Your task to perform on an android device: Open the map Image 0: 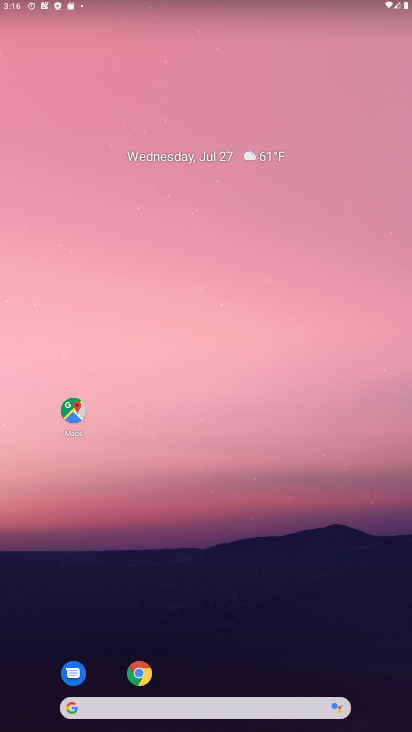
Step 0: click (62, 397)
Your task to perform on an android device: Open the map Image 1: 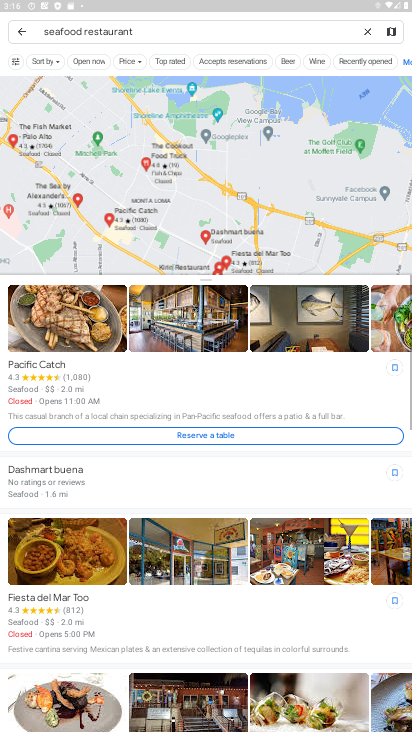
Step 1: click (19, 31)
Your task to perform on an android device: Open the map Image 2: 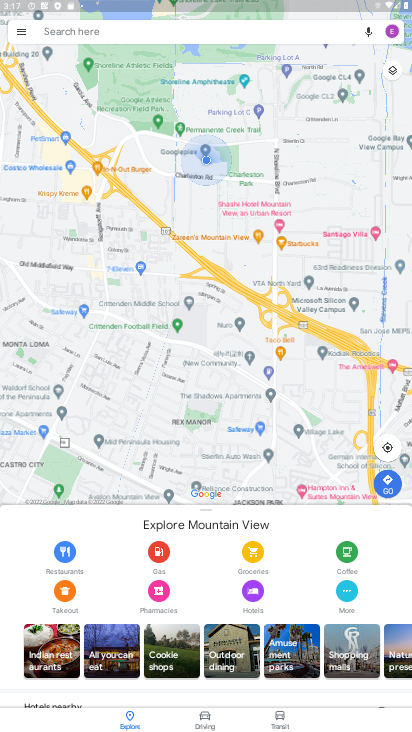
Step 2: task complete